Your task to perform on an android device: Go to Android settings Image 0: 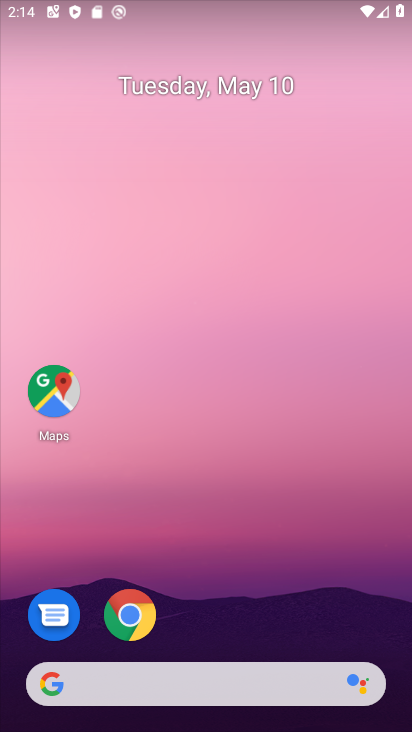
Step 0: drag from (323, 596) to (296, 103)
Your task to perform on an android device: Go to Android settings Image 1: 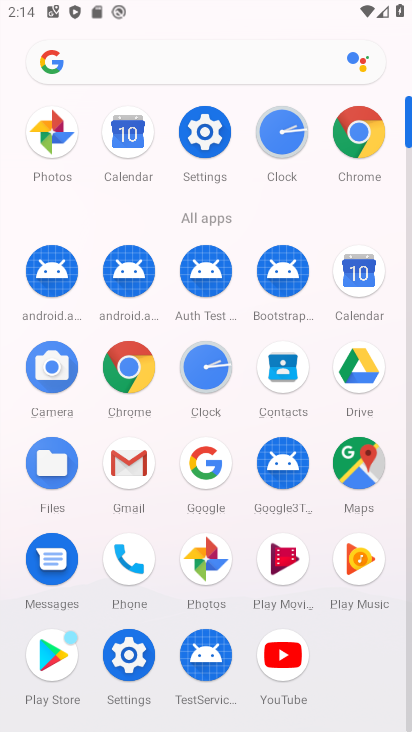
Step 1: click (199, 125)
Your task to perform on an android device: Go to Android settings Image 2: 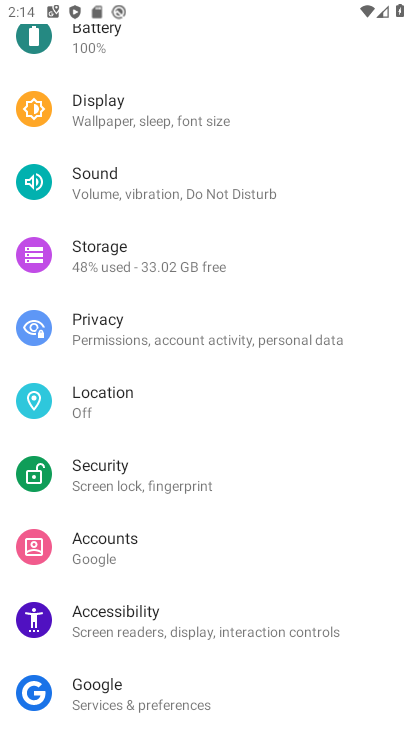
Step 2: drag from (244, 685) to (298, 149)
Your task to perform on an android device: Go to Android settings Image 3: 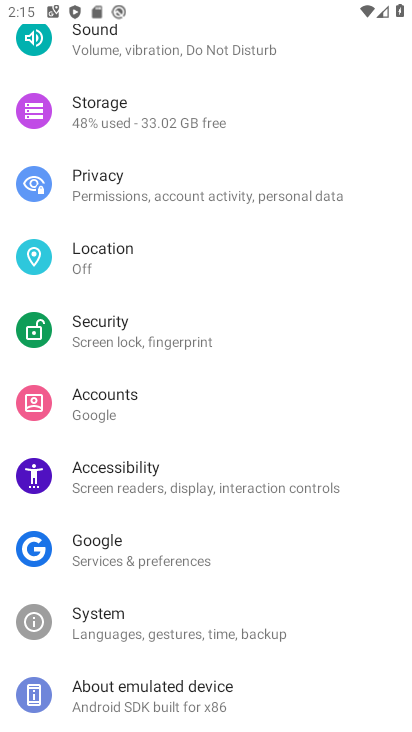
Step 3: click (145, 694)
Your task to perform on an android device: Go to Android settings Image 4: 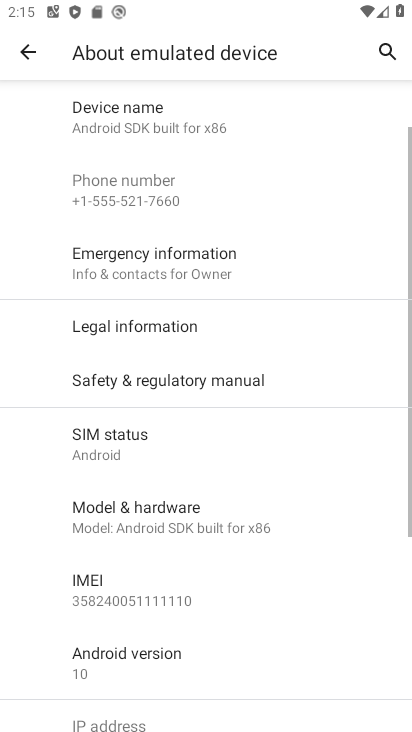
Step 4: click (138, 642)
Your task to perform on an android device: Go to Android settings Image 5: 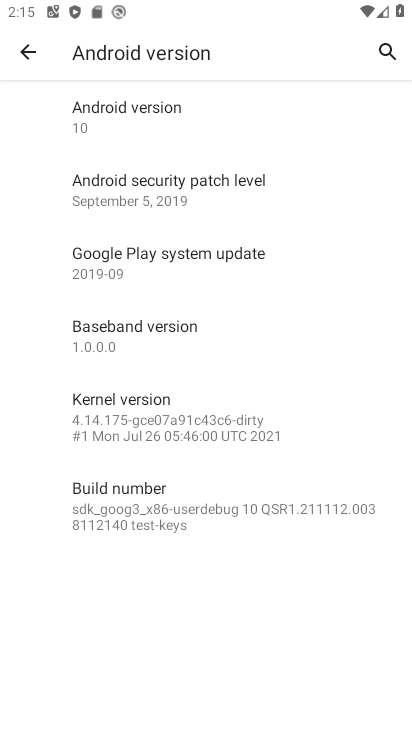
Step 5: task complete